Your task to perform on an android device: Toggle the flashlight Image 0: 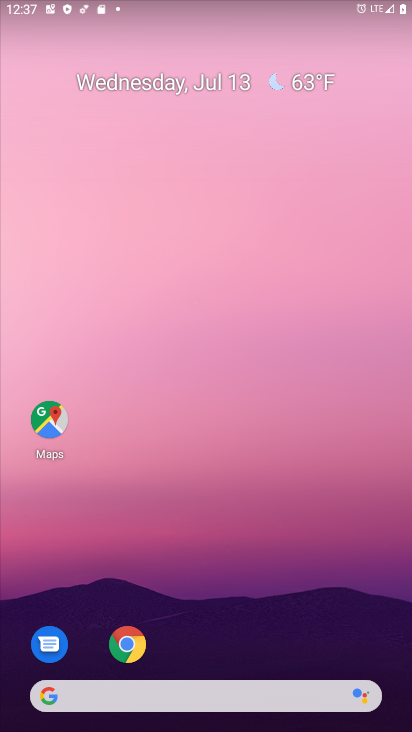
Step 0: drag from (209, 689) to (180, 155)
Your task to perform on an android device: Toggle the flashlight Image 1: 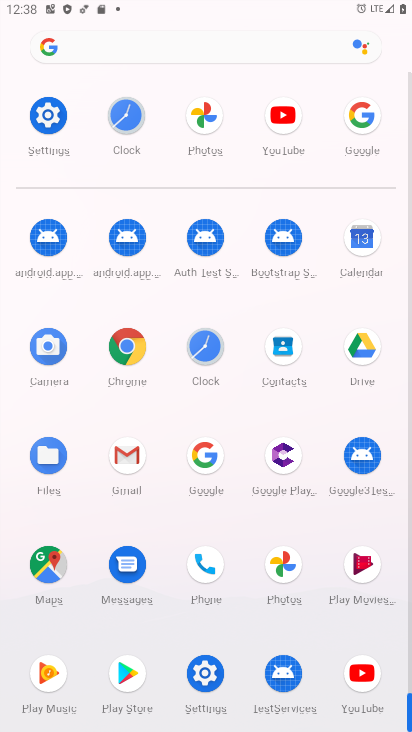
Step 1: click (207, 674)
Your task to perform on an android device: Toggle the flashlight Image 2: 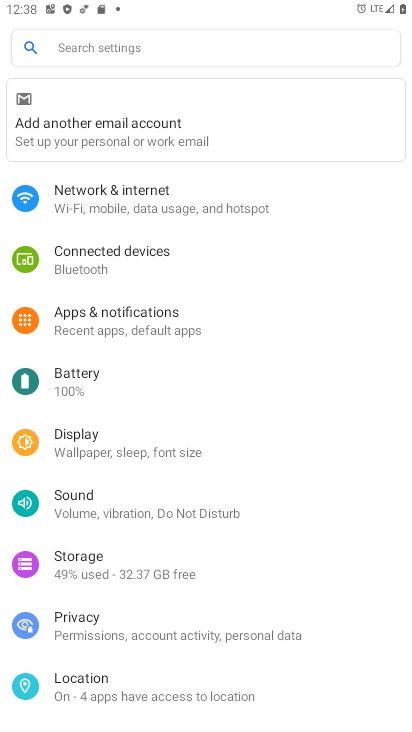
Step 2: click (87, 436)
Your task to perform on an android device: Toggle the flashlight Image 3: 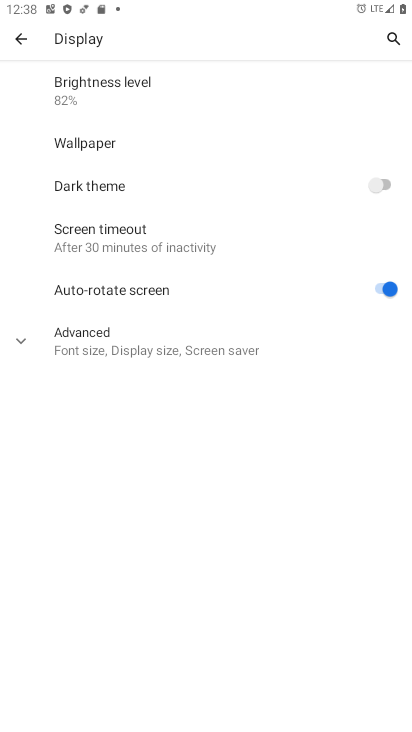
Step 3: click (178, 250)
Your task to perform on an android device: Toggle the flashlight Image 4: 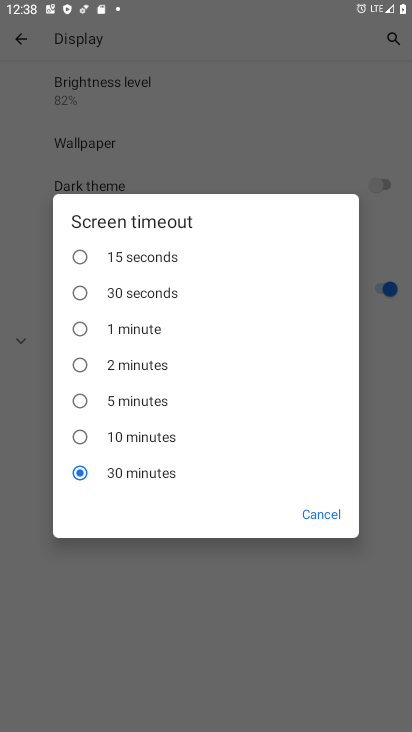
Step 4: click (316, 513)
Your task to perform on an android device: Toggle the flashlight Image 5: 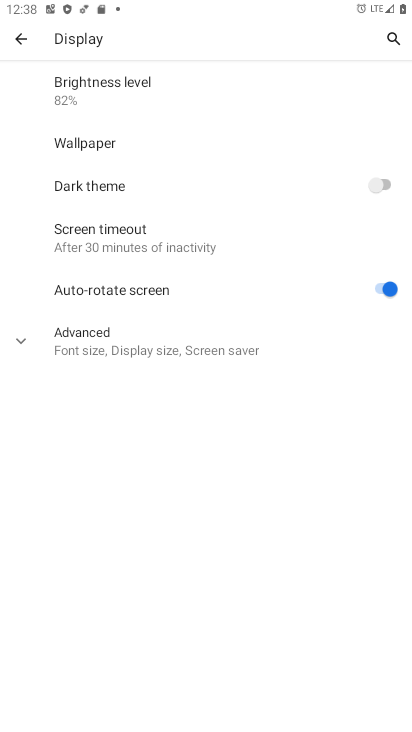
Step 5: click (92, 144)
Your task to perform on an android device: Toggle the flashlight Image 6: 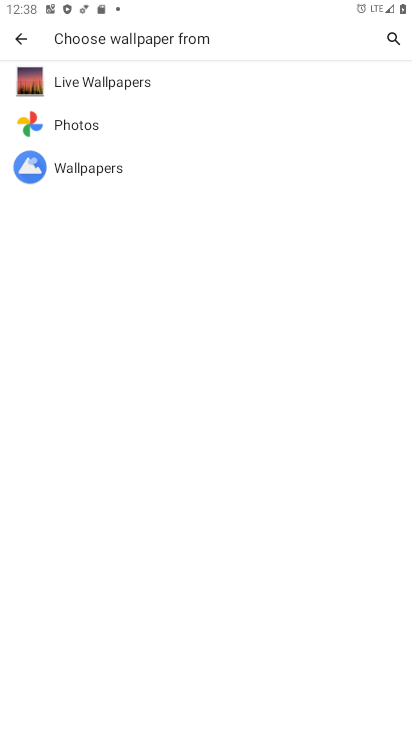
Step 6: press back button
Your task to perform on an android device: Toggle the flashlight Image 7: 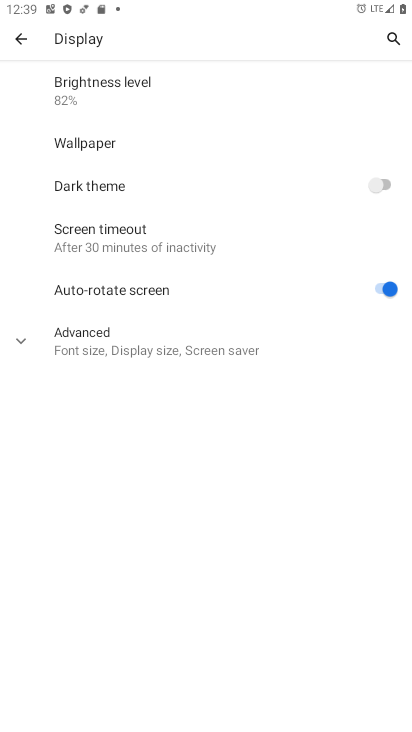
Step 7: click (124, 236)
Your task to perform on an android device: Toggle the flashlight Image 8: 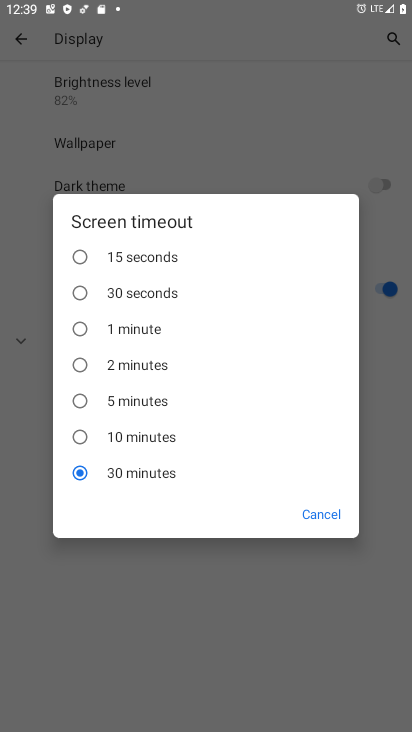
Step 8: click (332, 516)
Your task to perform on an android device: Toggle the flashlight Image 9: 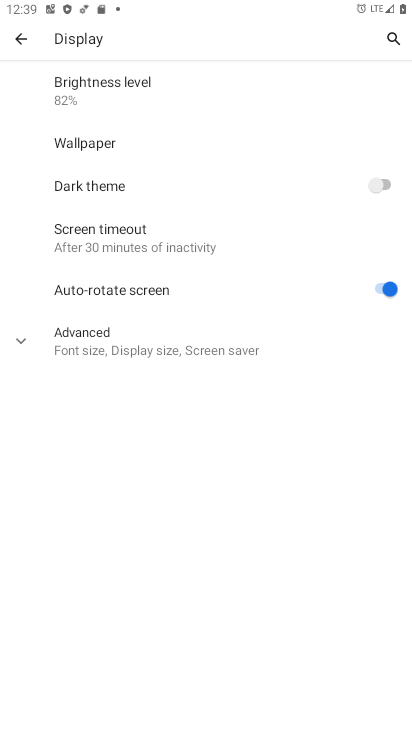
Step 9: click (192, 249)
Your task to perform on an android device: Toggle the flashlight Image 10: 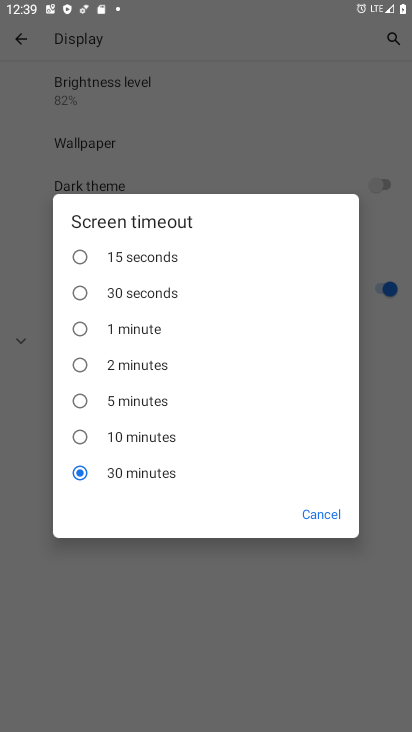
Step 10: click (319, 517)
Your task to perform on an android device: Toggle the flashlight Image 11: 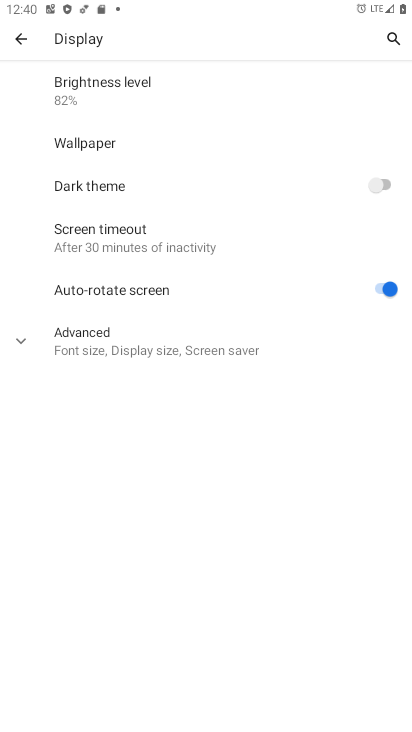
Step 11: task complete